Your task to perform on an android device: Open Android settings Image 0: 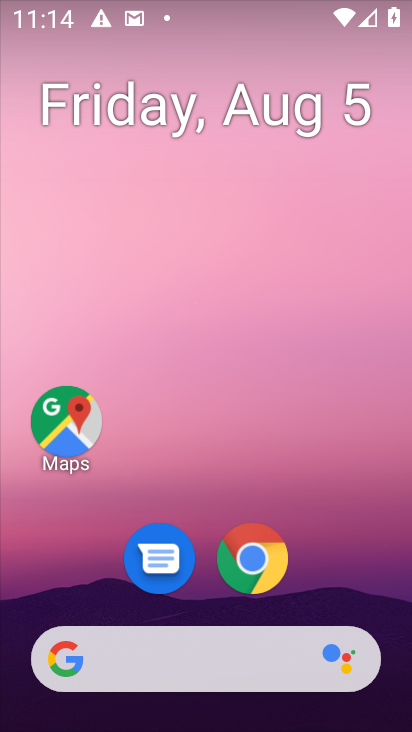
Step 0: press home button
Your task to perform on an android device: Open Android settings Image 1: 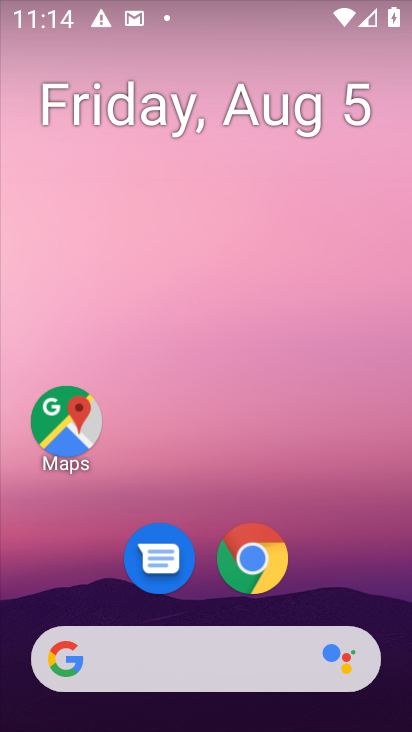
Step 1: drag from (330, 564) to (336, 206)
Your task to perform on an android device: Open Android settings Image 2: 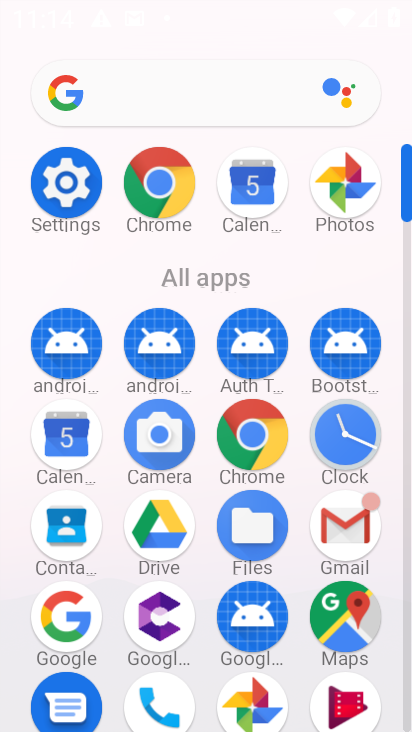
Step 2: click (51, 201)
Your task to perform on an android device: Open Android settings Image 3: 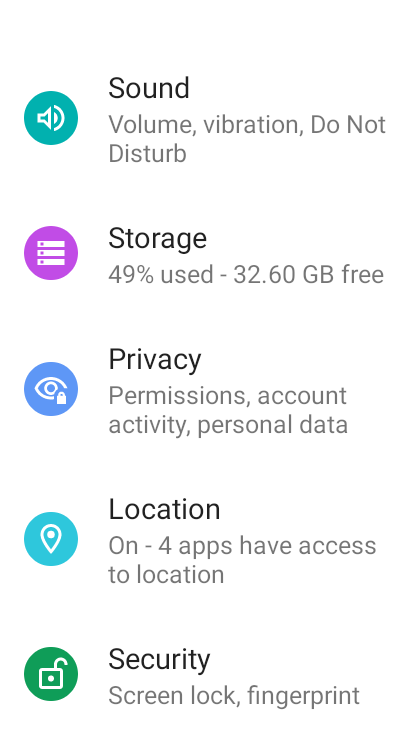
Step 3: drag from (374, 201) to (383, 306)
Your task to perform on an android device: Open Android settings Image 4: 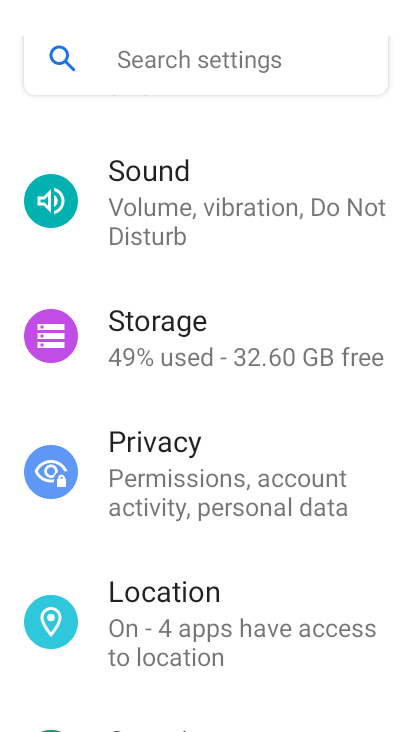
Step 4: drag from (376, 144) to (381, 276)
Your task to perform on an android device: Open Android settings Image 5: 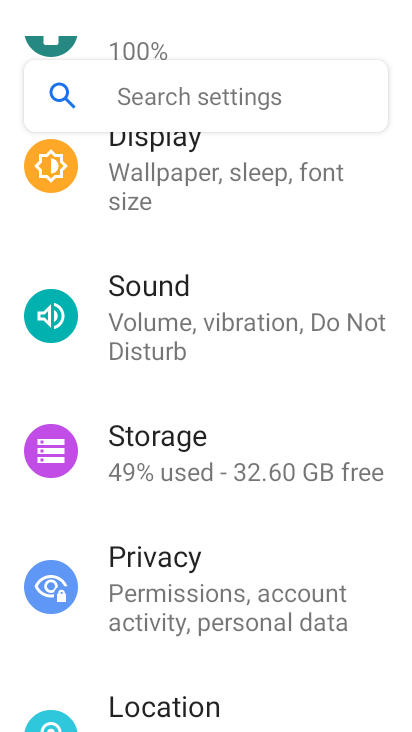
Step 5: drag from (379, 139) to (397, 306)
Your task to perform on an android device: Open Android settings Image 6: 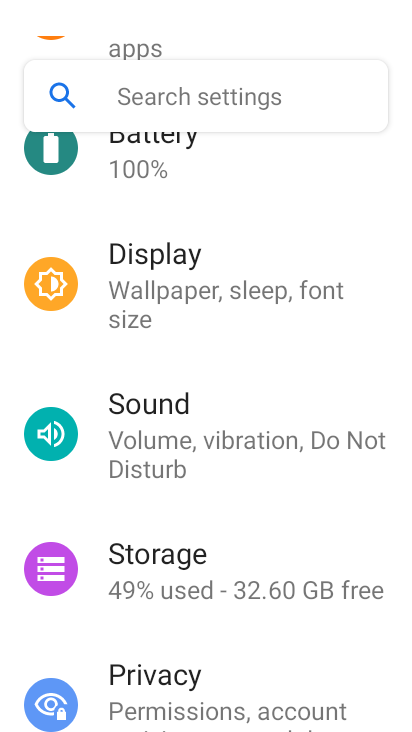
Step 6: drag from (380, 150) to (394, 378)
Your task to perform on an android device: Open Android settings Image 7: 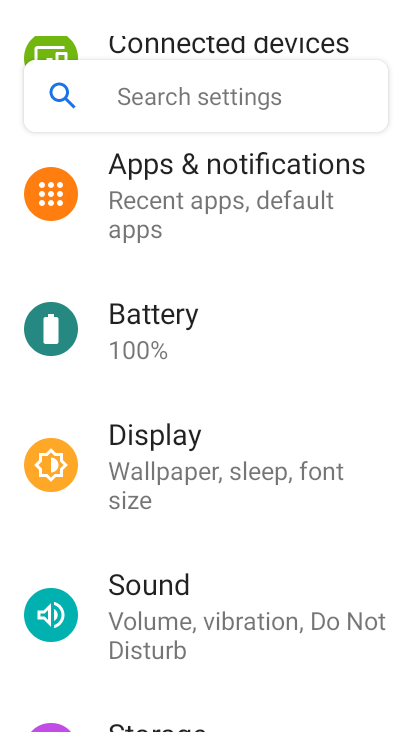
Step 7: drag from (379, 177) to (386, 370)
Your task to perform on an android device: Open Android settings Image 8: 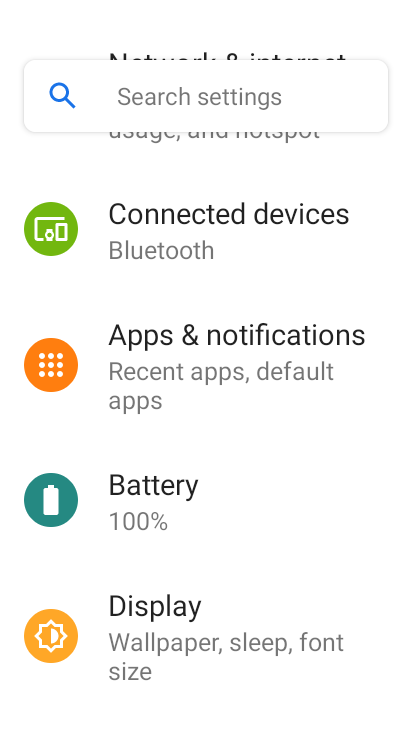
Step 8: drag from (342, 455) to (353, 316)
Your task to perform on an android device: Open Android settings Image 9: 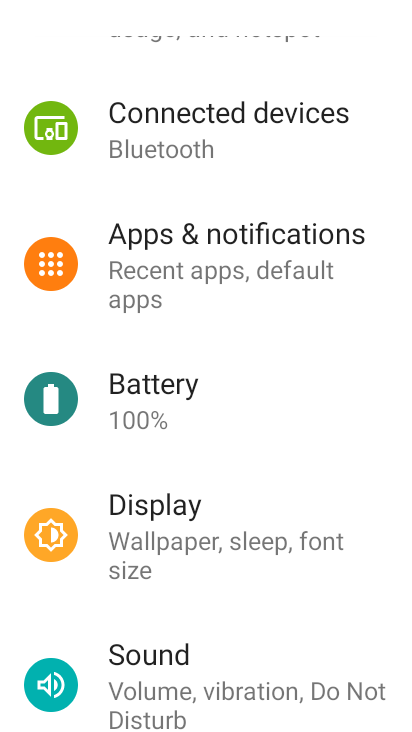
Step 9: drag from (340, 487) to (340, 312)
Your task to perform on an android device: Open Android settings Image 10: 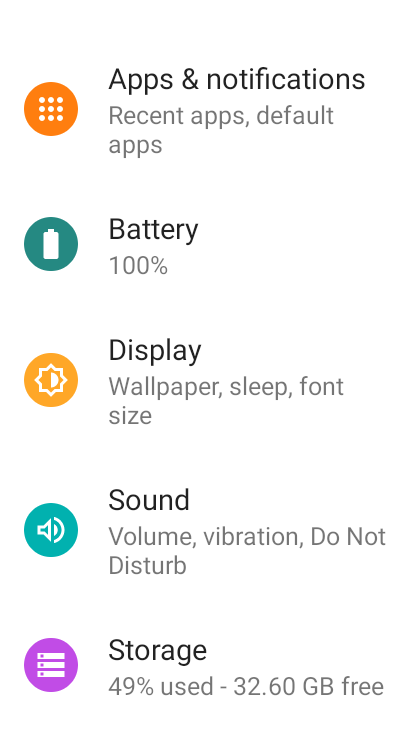
Step 10: drag from (337, 481) to (336, 321)
Your task to perform on an android device: Open Android settings Image 11: 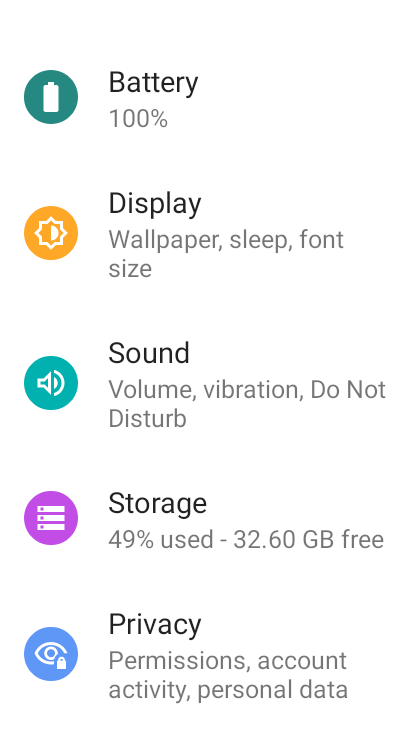
Step 11: drag from (340, 474) to (337, 336)
Your task to perform on an android device: Open Android settings Image 12: 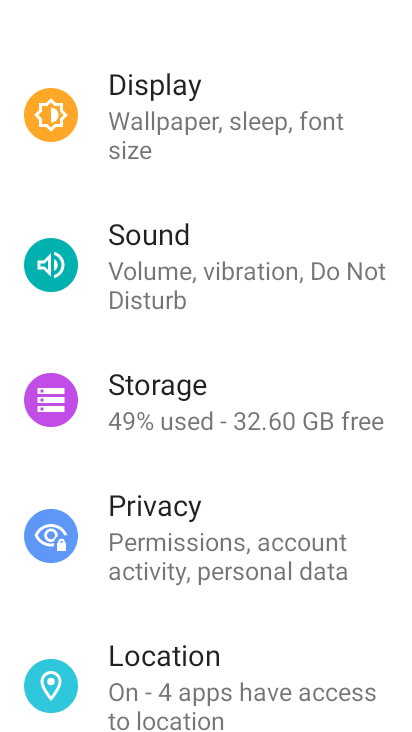
Step 12: drag from (356, 502) to (355, 368)
Your task to perform on an android device: Open Android settings Image 13: 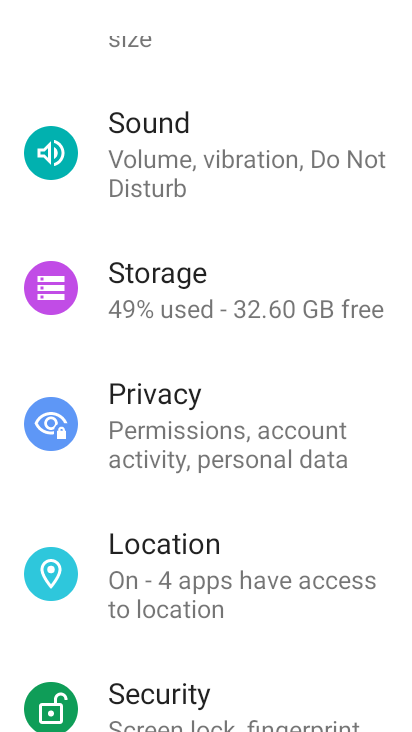
Step 13: drag from (365, 569) to (370, 394)
Your task to perform on an android device: Open Android settings Image 14: 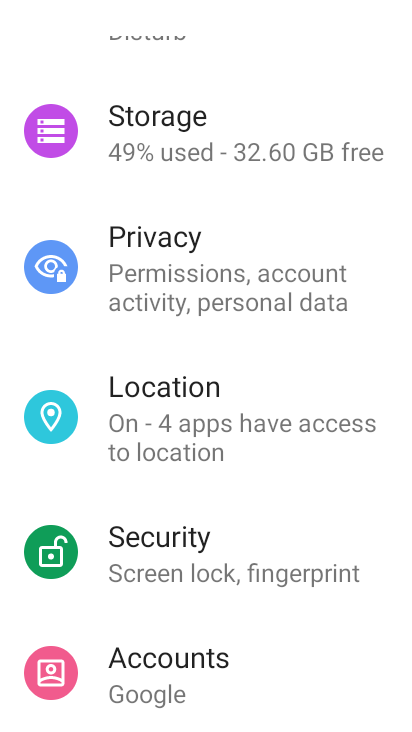
Step 14: drag from (356, 512) to (356, 387)
Your task to perform on an android device: Open Android settings Image 15: 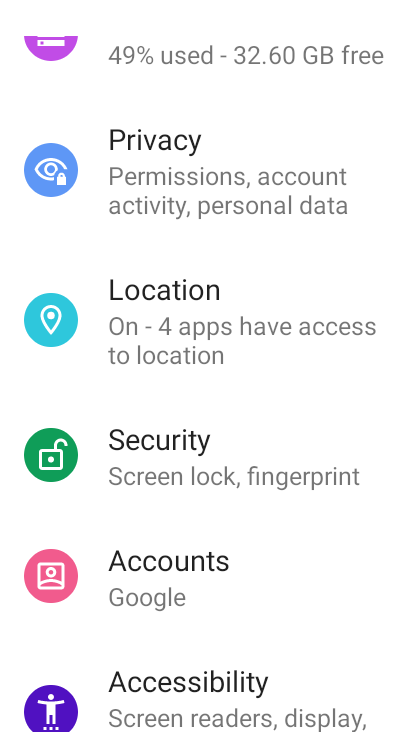
Step 15: drag from (354, 539) to (359, 426)
Your task to perform on an android device: Open Android settings Image 16: 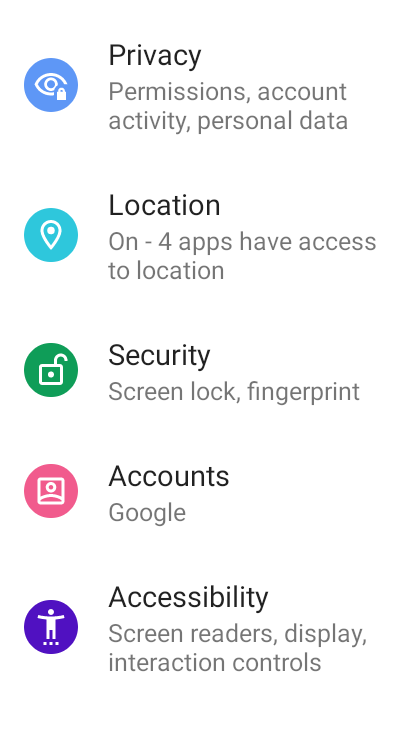
Step 16: drag from (364, 558) to (359, 482)
Your task to perform on an android device: Open Android settings Image 17: 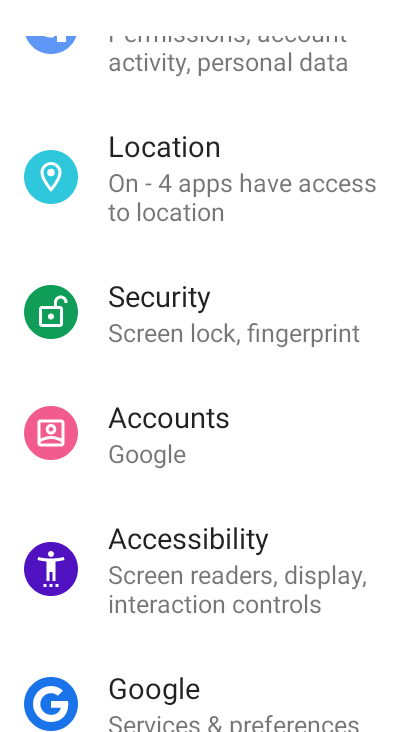
Step 17: drag from (359, 610) to (359, 488)
Your task to perform on an android device: Open Android settings Image 18: 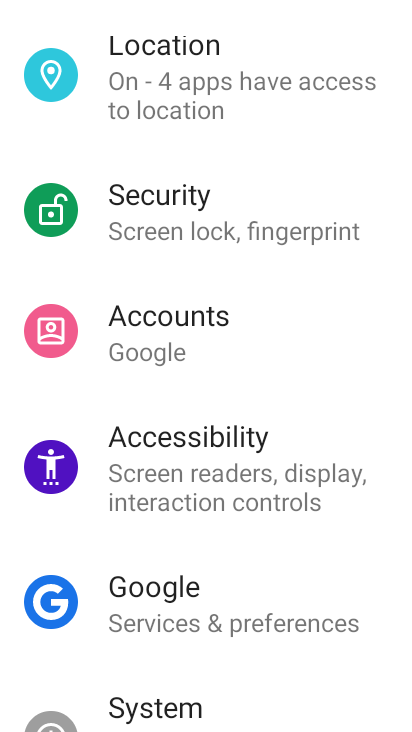
Step 18: drag from (342, 630) to (335, 479)
Your task to perform on an android device: Open Android settings Image 19: 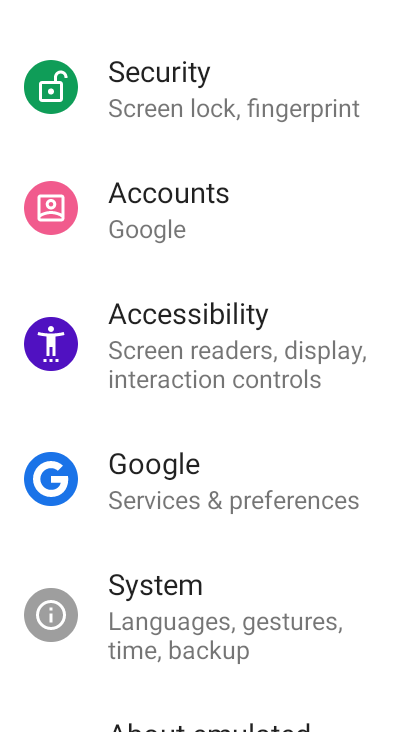
Step 19: click (323, 608)
Your task to perform on an android device: Open Android settings Image 20: 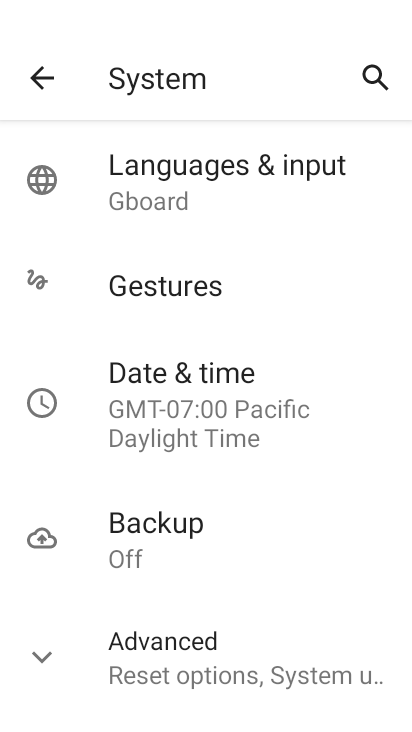
Step 20: click (299, 684)
Your task to perform on an android device: Open Android settings Image 21: 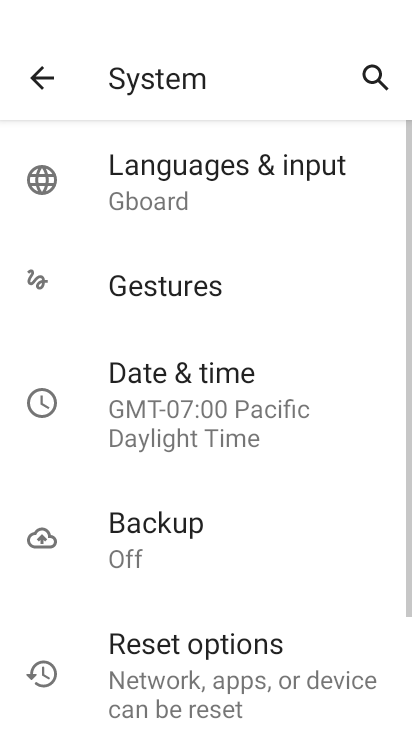
Step 21: task complete